Your task to perform on an android device: Go to Yahoo.com Image 0: 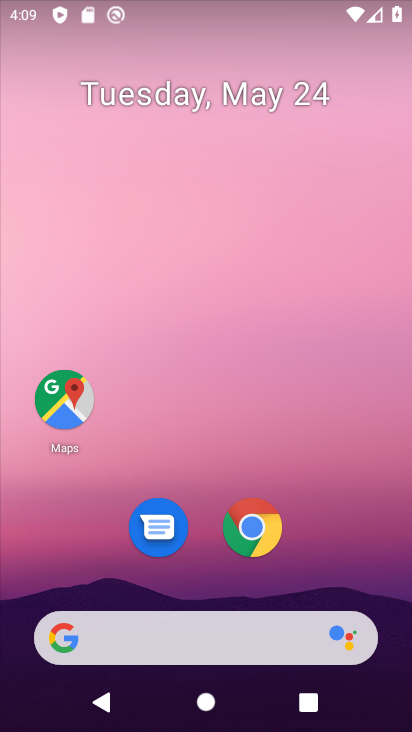
Step 0: click (255, 534)
Your task to perform on an android device: Go to Yahoo.com Image 1: 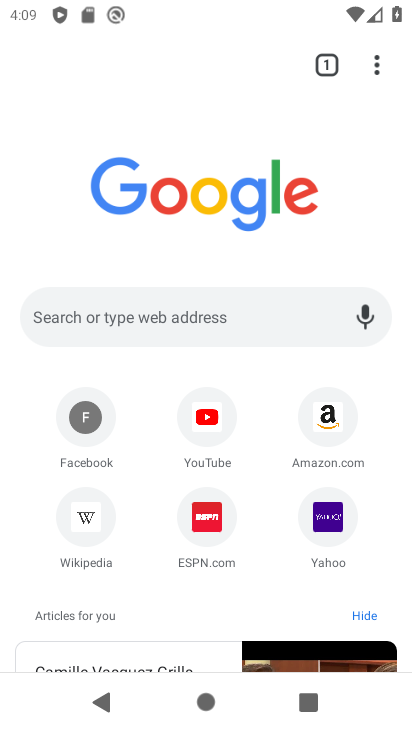
Step 1: click (322, 521)
Your task to perform on an android device: Go to Yahoo.com Image 2: 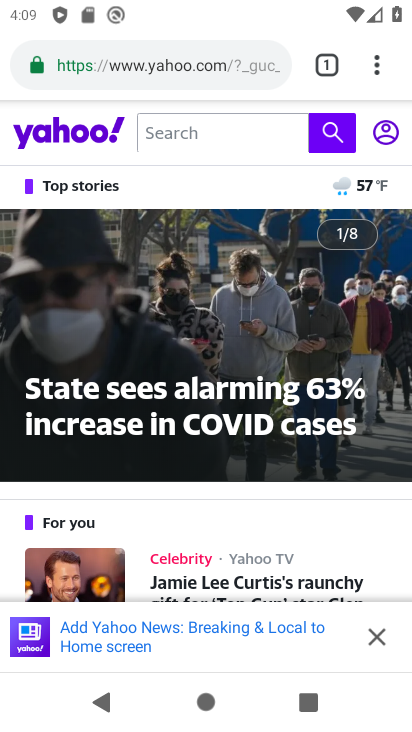
Step 2: task complete